Your task to perform on an android device: Open the web browser Image 0: 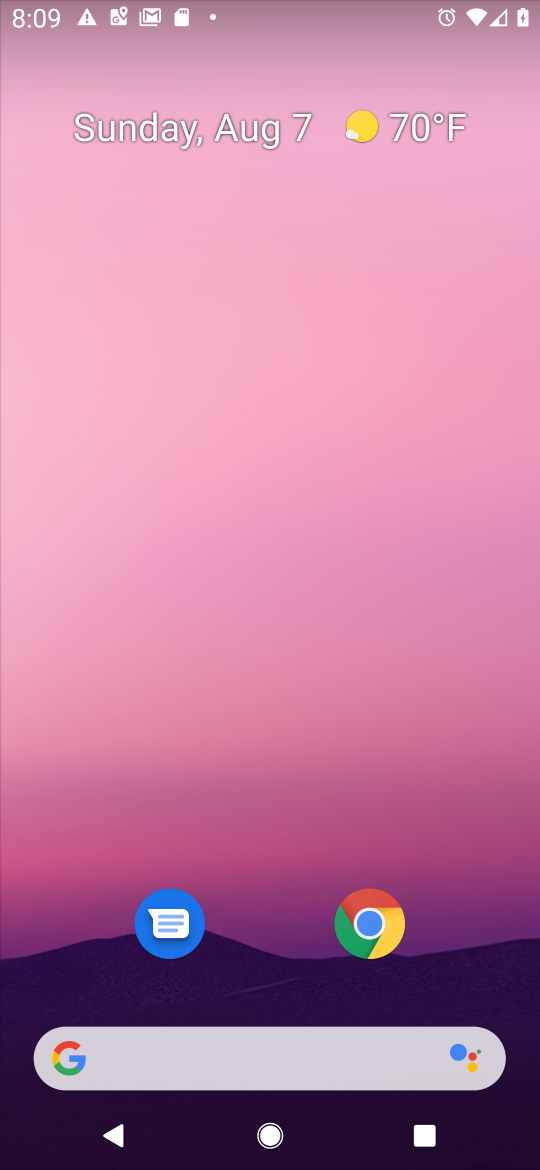
Step 0: drag from (478, 924) to (239, 128)
Your task to perform on an android device: Open the web browser Image 1: 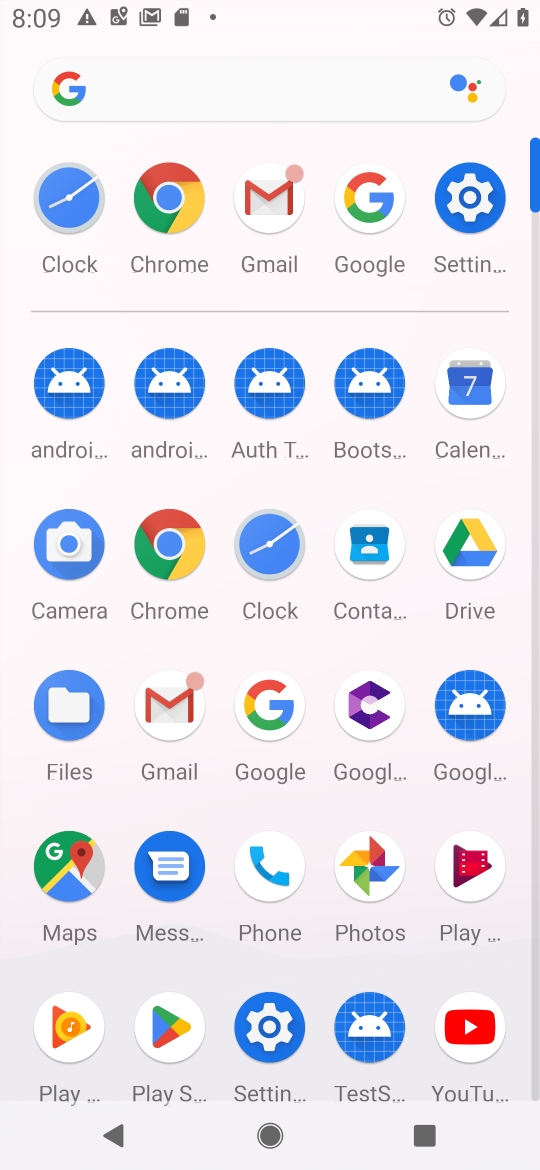
Step 1: click (374, 223)
Your task to perform on an android device: Open the web browser Image 2: 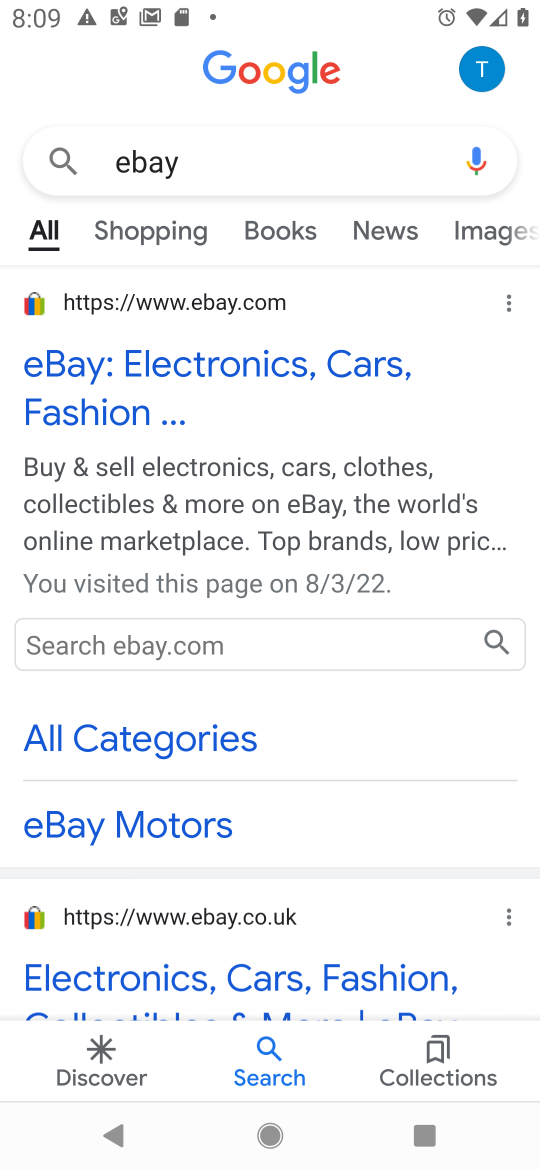
Step 2: press home button
Your task to perform on an android device: Open the web browser Image 3: 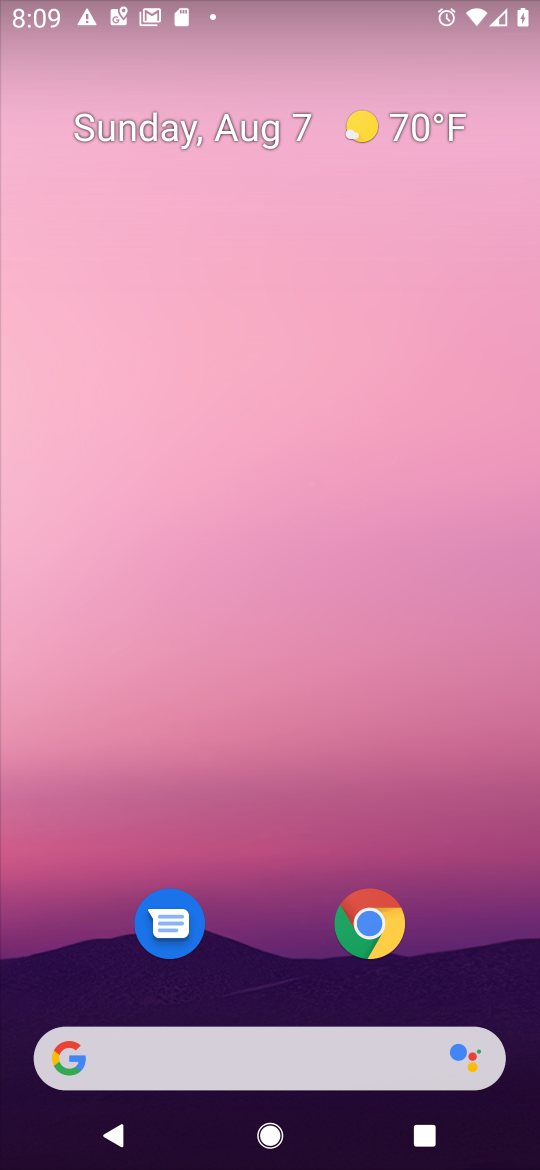
Step 3: drag from (292, 902) to (149, 36)
Your task to perform on an android device: Open the web browser Image 4: 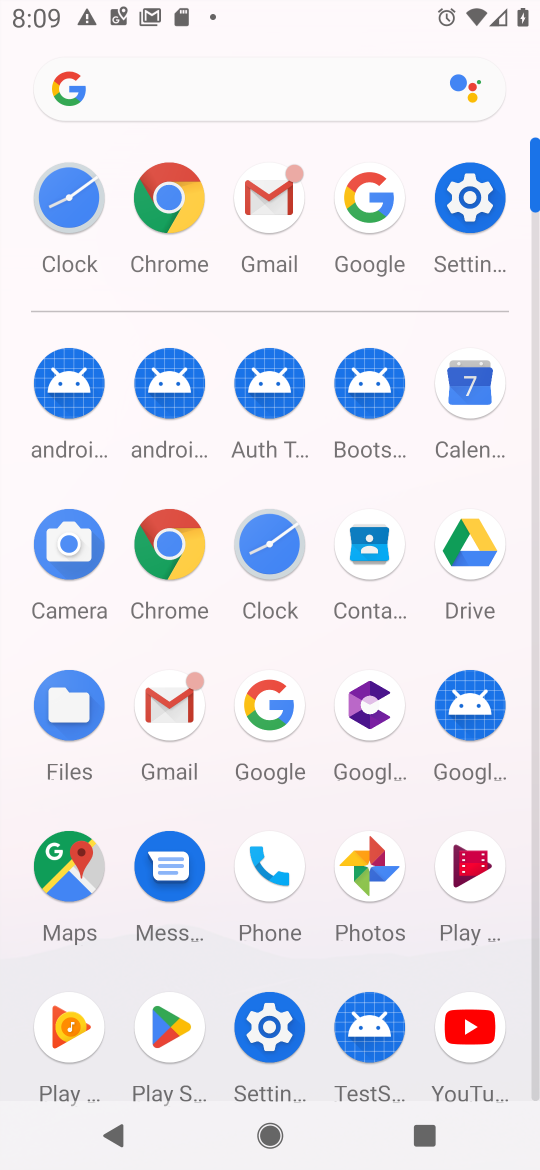
Step 4: click (381, 176)
Your task to perform on an android device: Open the web browser Image 5: 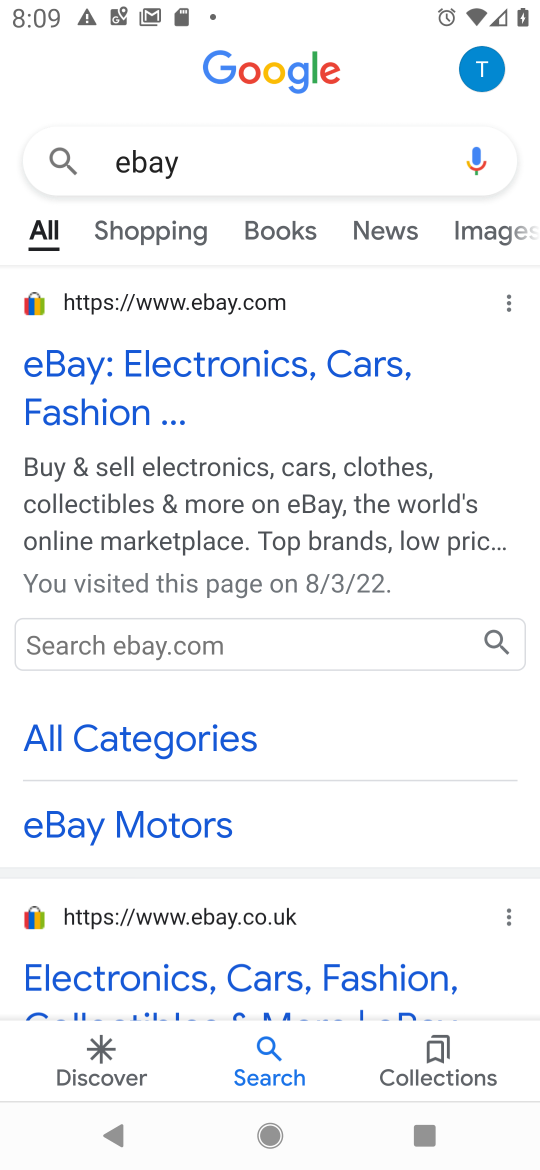
Step 5: press back button
Your task to perform on an android device: Open the web browser Image 6: 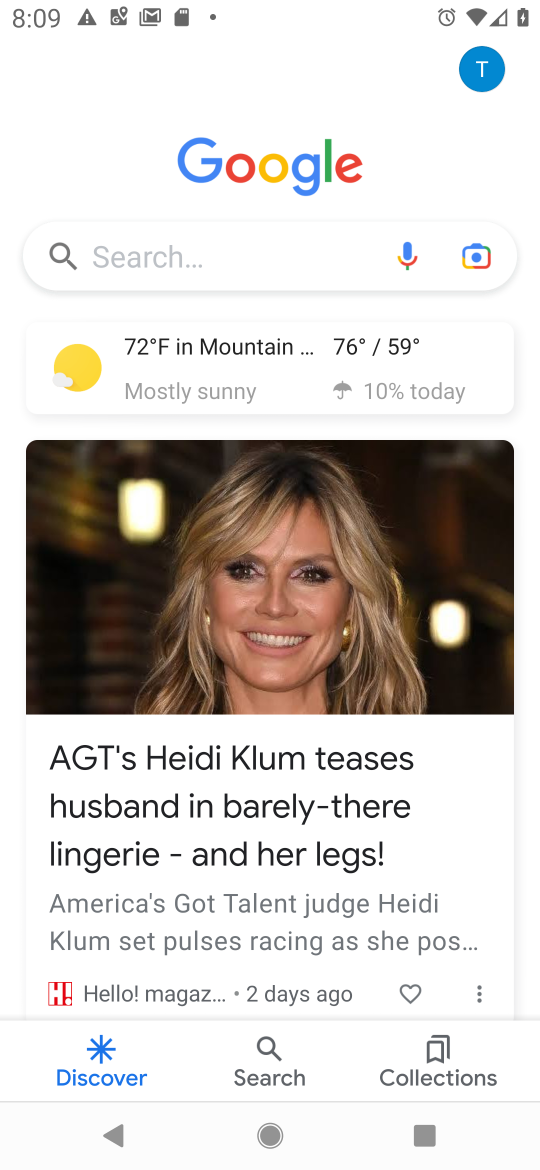
Step 6: click (132, 263)
Your task to perform on an android device: Open the web browser Image 7: 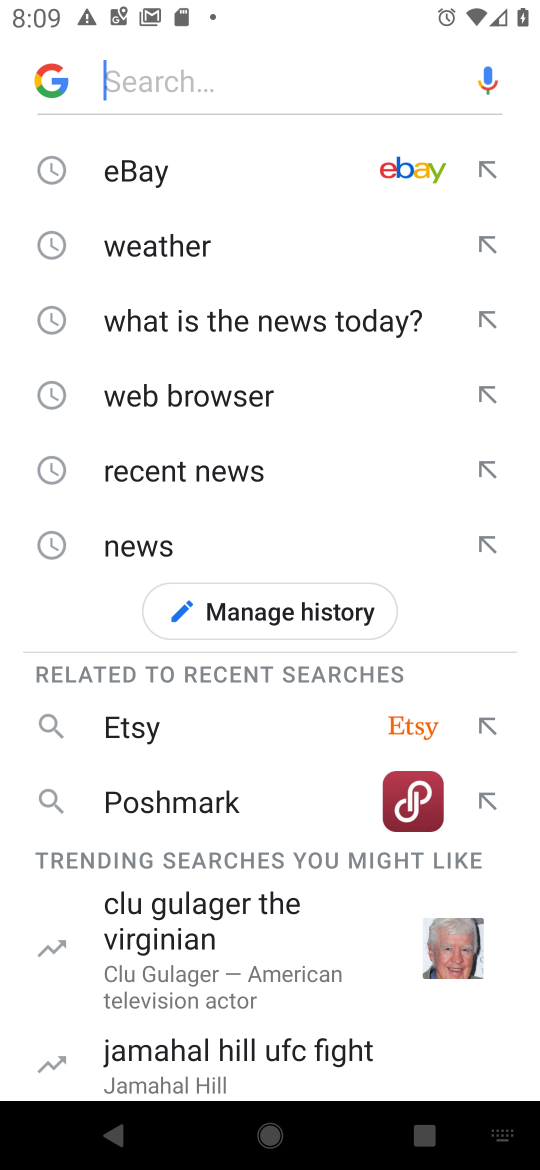
Step 7: click (184, 421)
Your task to perform on an android device: Open the web browser Image 8: 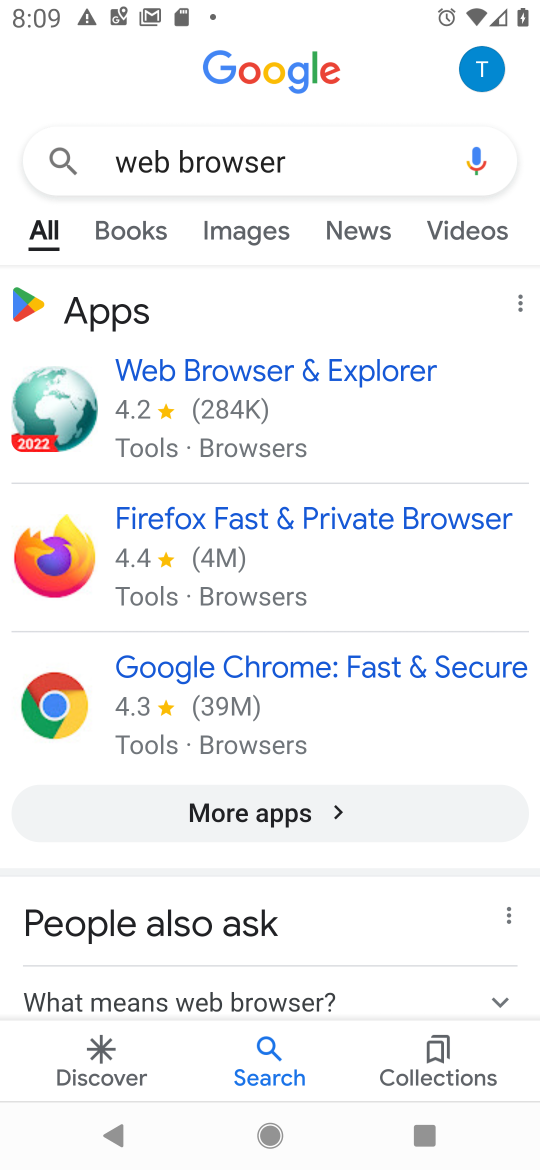
Step 8: task complete